Your task to perform on an android device: Go to eBay Image 0: 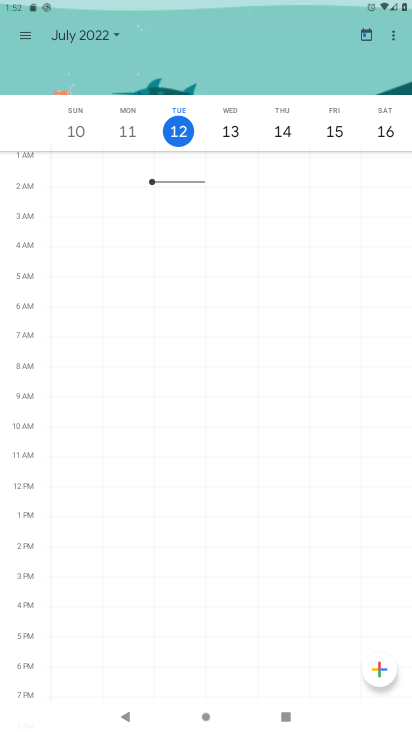
Step 0: press home button
Your task to perform on an android device: Go to eBay Image 1: 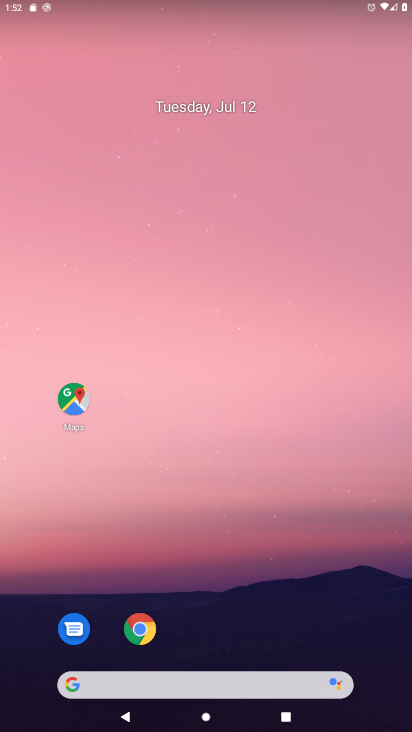
Step 1: drag from (165, 688) to (233, 131)
Your task to perform on an android device: Go to eBay Image 2: 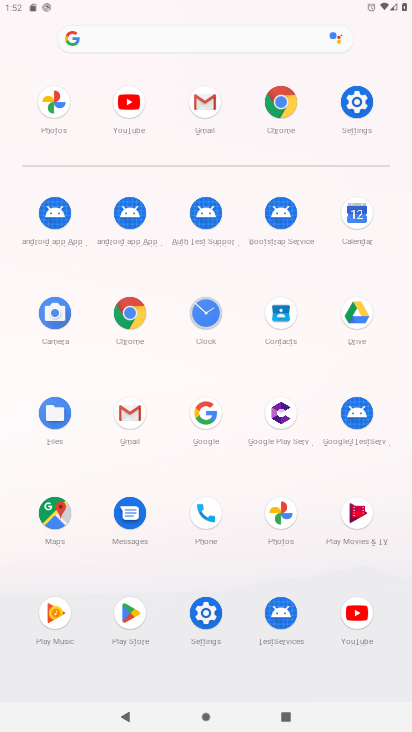
Step 2: click (137, 320)
Your task to perform on an android device: Go to eBay Image 3: 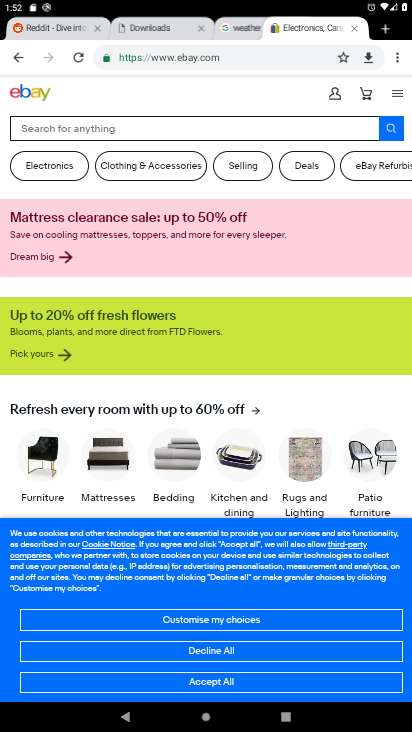
Step 3: task complete